Your task to perform on an android device: clear all cookies in the chrome app Image 0: 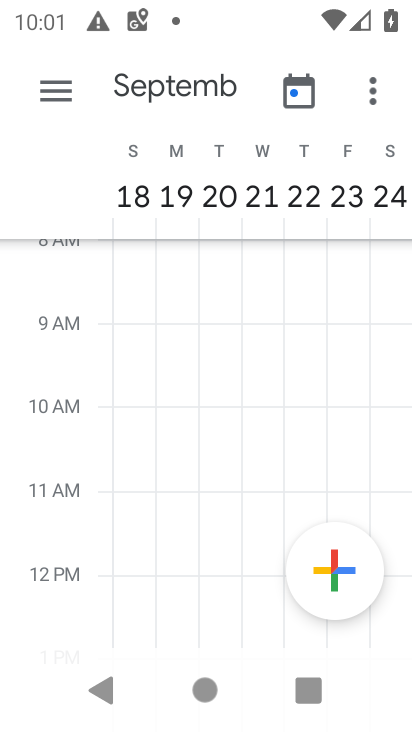
Step 0: press home button
Your task to perform on an android device: clear all cookies in the chrome app Image 1: 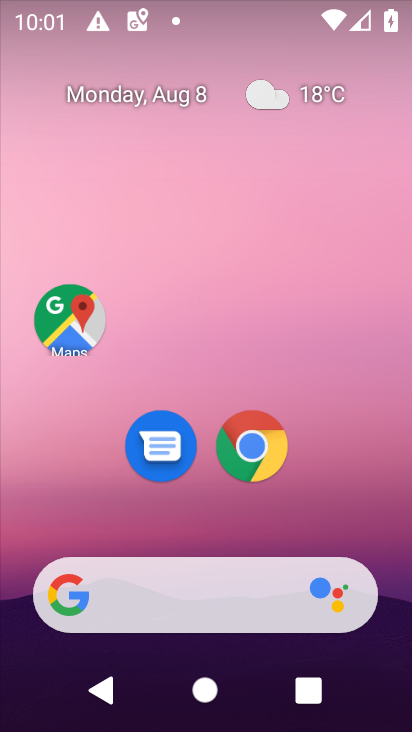
Step 1: click (253, 449)
Your task to perform on an android device: clear all cookies in the chrome app Image 2: 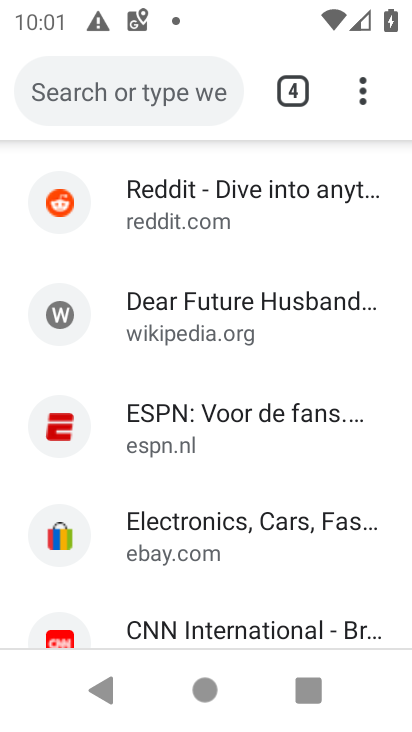
Step 2: click (356, 97)
Your task to perform on an android device: clear all cookies in the chrome app Image 3: 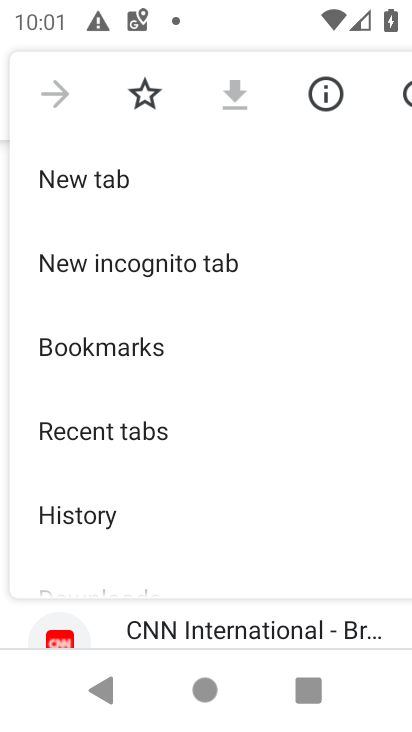
Step 3: click (84, 518)
Your task to perform on an android device: clear all cookies in the chrome app Image 4: 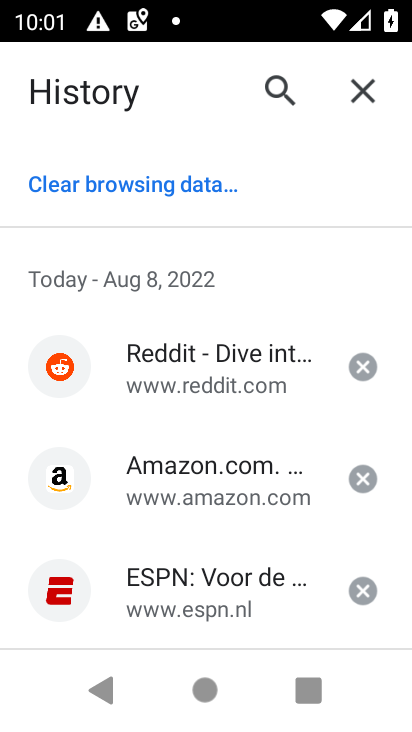
Step 4: click (140, 187)
Your task to perform on an android device: clear all cookies in the chrome app Image 5: 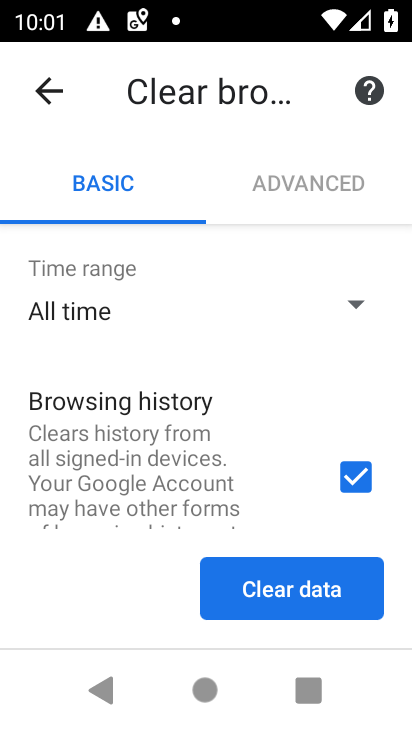
Step 5: click (354, 483)
Your task to perform on an android device: clear all cookies in the chrome app Image 6: 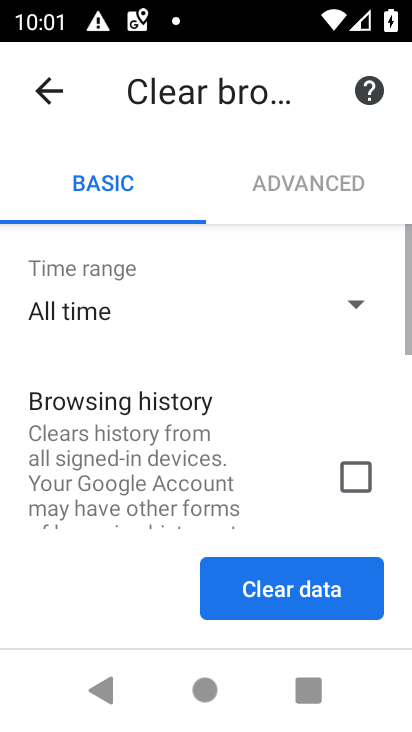
Step 6: drag from (269, 538) to (258, 204)
Your task to perform on an android device: clear all cookies in the chrome app Image 7: 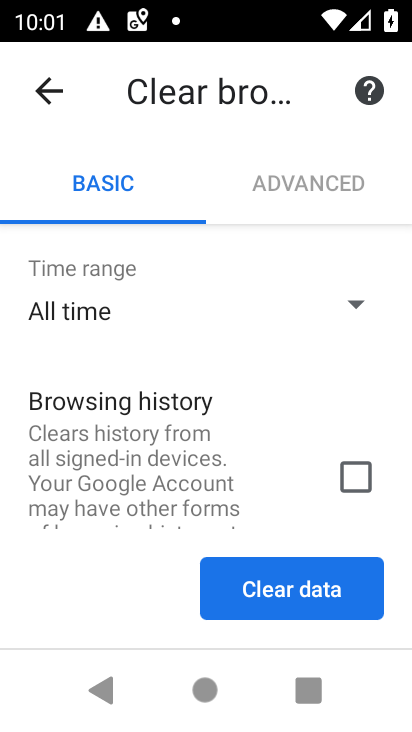
Step 7: drag from (238, 472) to (232, 157)
Your task to perform on an android device: clear all cookies in the chrome app Image 8: 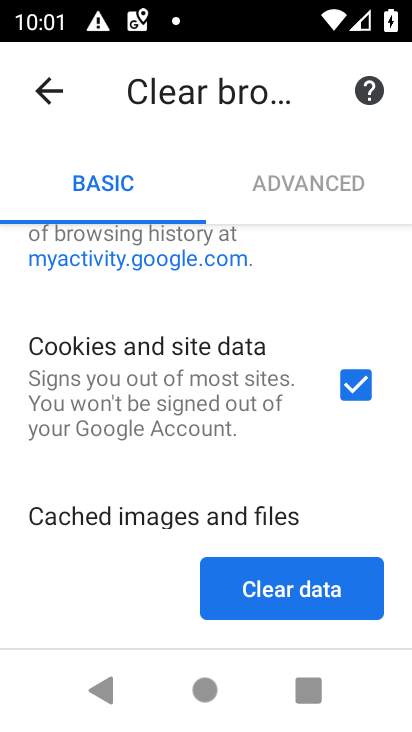
Step 8: drag from (259, 464) to (253, 145)
Your task to perform on an android device: clear all cookies in the chrome app Image 9: 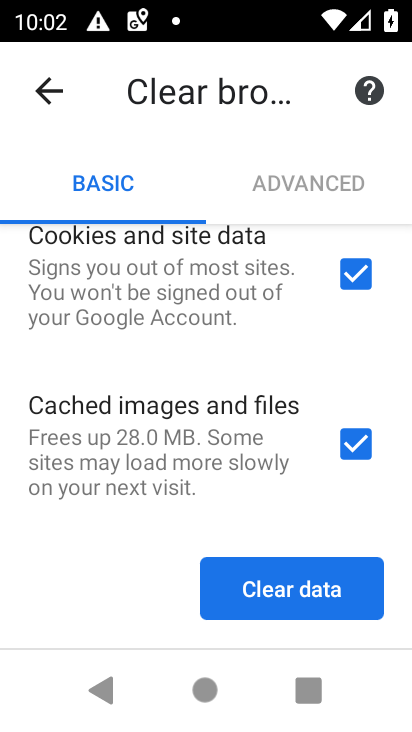
Step 9: click (353, 448)
Your task to perform on an android device: clear all cookies in the chrome app Image 10: 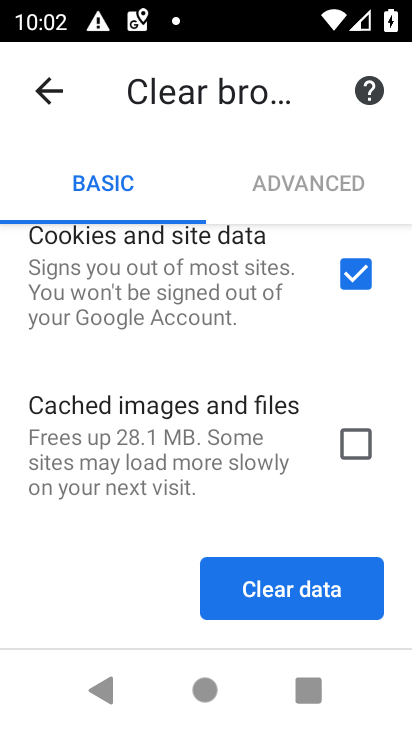
Step 10: click (281, 590)
Your task to perform on an android device: clear all cookies in the chrome app Image 11: 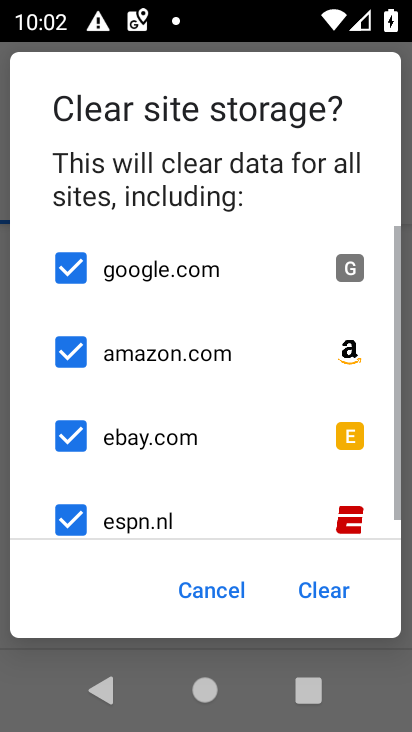
Step 11: click (315, 587)
Your task to perform on an android device: clear all cookies in the chrome app Image 12: 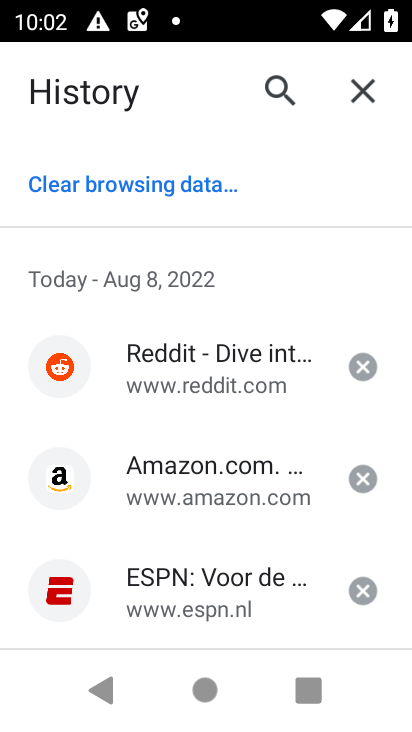
Step 12: task complete